Your task to perform on an android device: find photos in the google photos app Image 0: 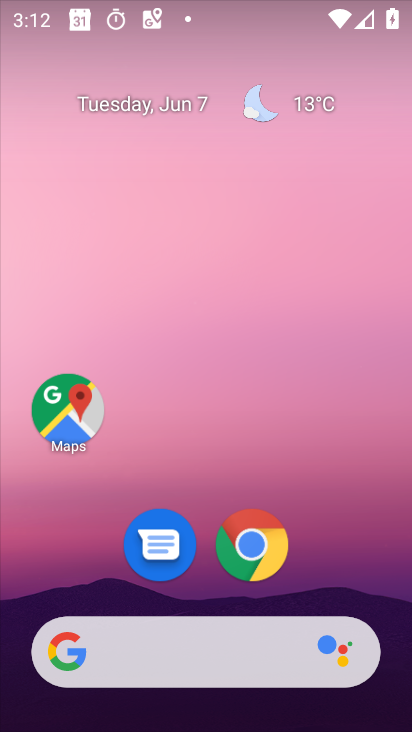
Step 0: drag from (341, 463) to (232, 25)
Your task to perform on an android device: find photos in the google photos app Image 1: 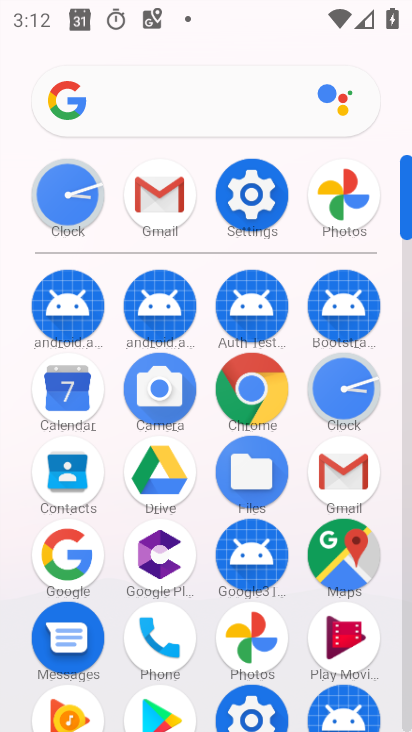
Step 1: click (355, 200)
Your task to perform on an android device: find photos in the google photos app Image 2: 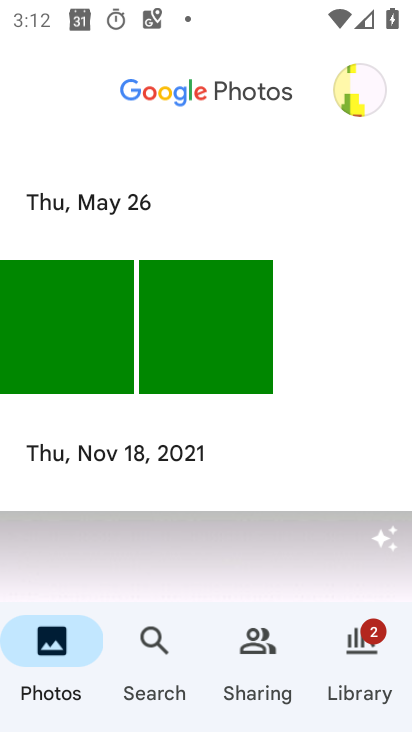
Step 2: task complete